Your task to perform on an android device: check google app version Image 0: 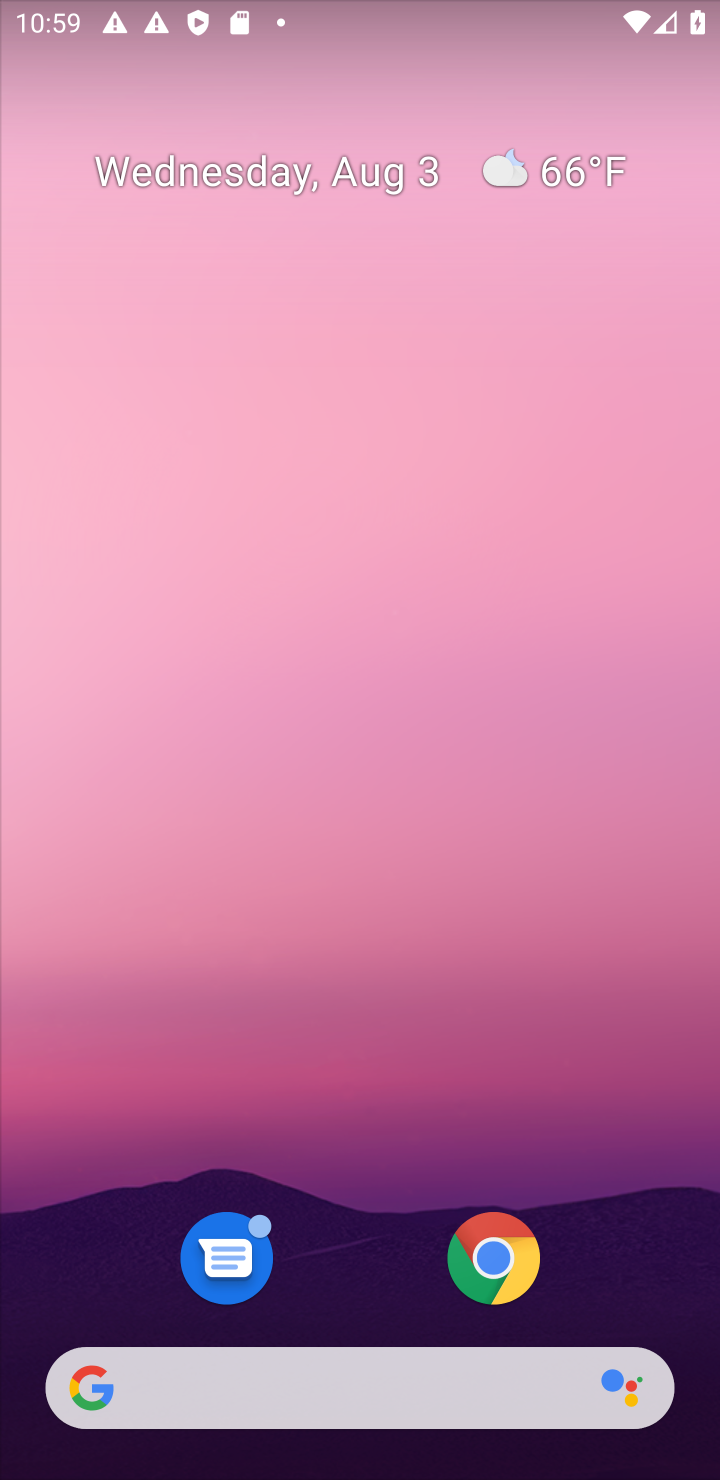
Step 0: press home button
Your task to perform on an android device: check google app version Image 1: 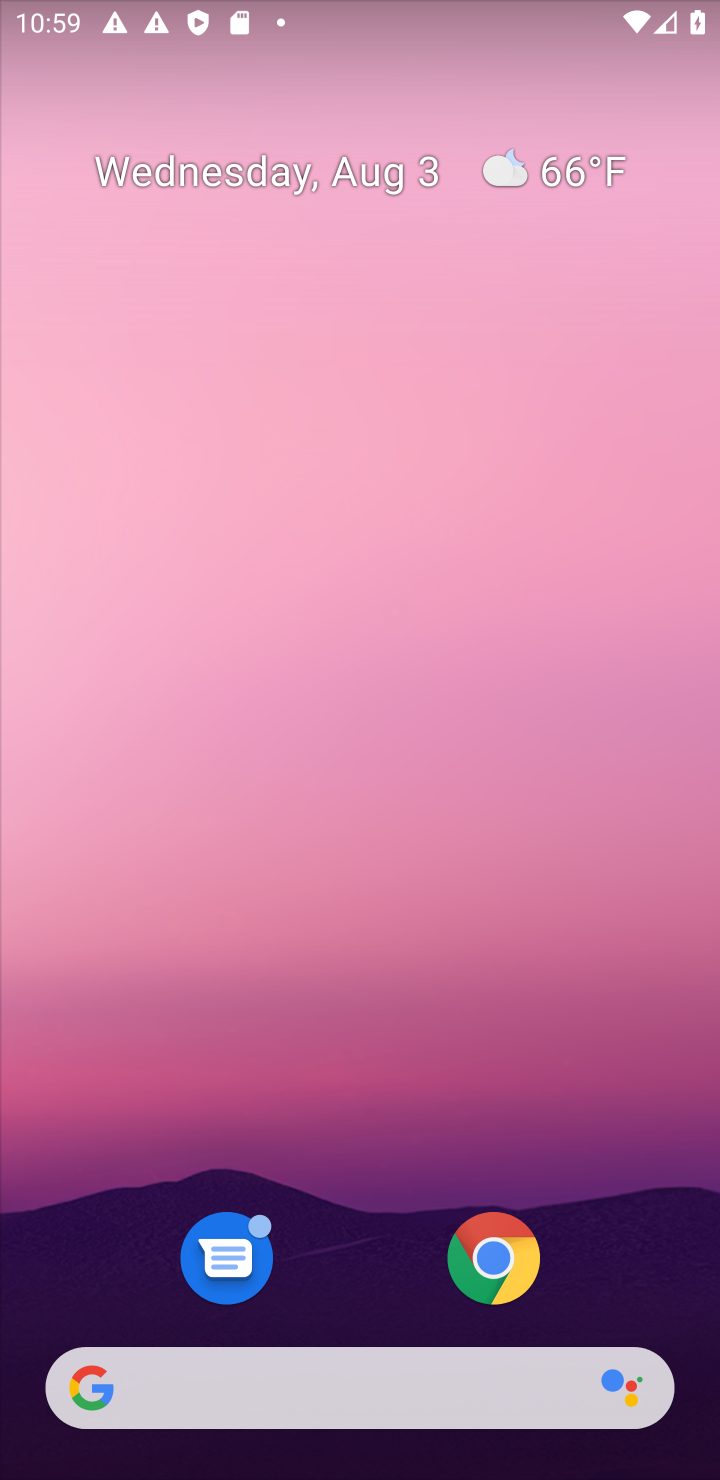
Step 1: drag from (377, 1307) to (392, 175)
Your task to perform on an android device: check google app version Image 2: 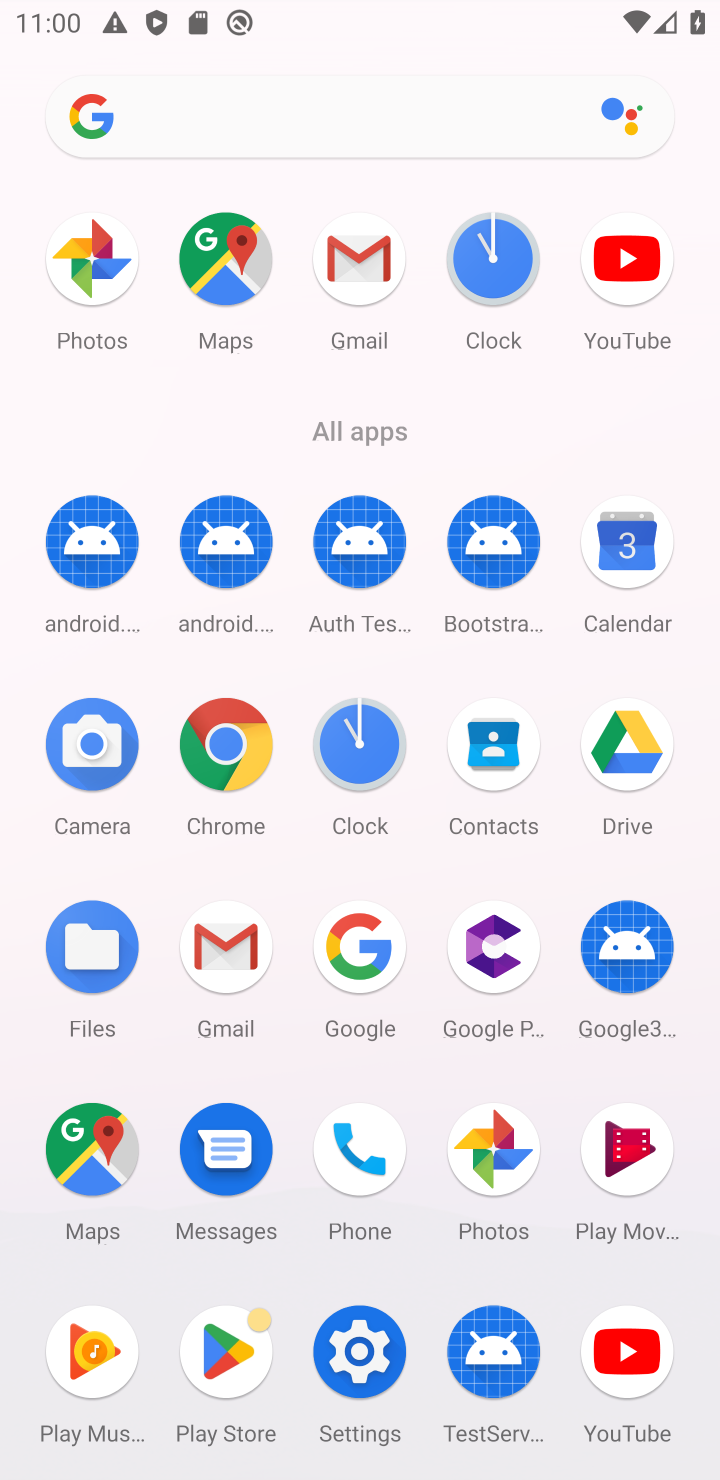
Step 2: click (360, 938)
Your task to perform on an android device: check google app version Image 3: 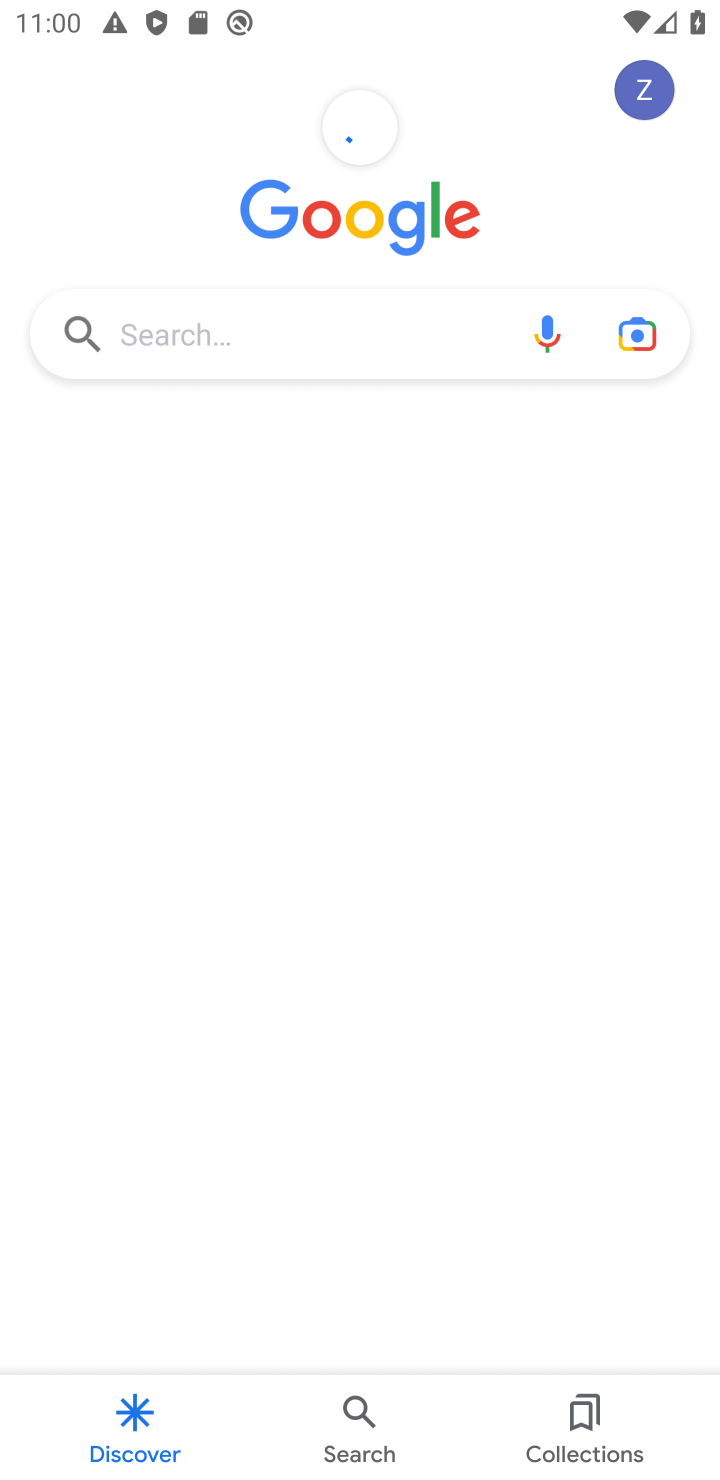
Step 3: click (638, 80)
Your task to perform on an android device: check google app version Image 4: 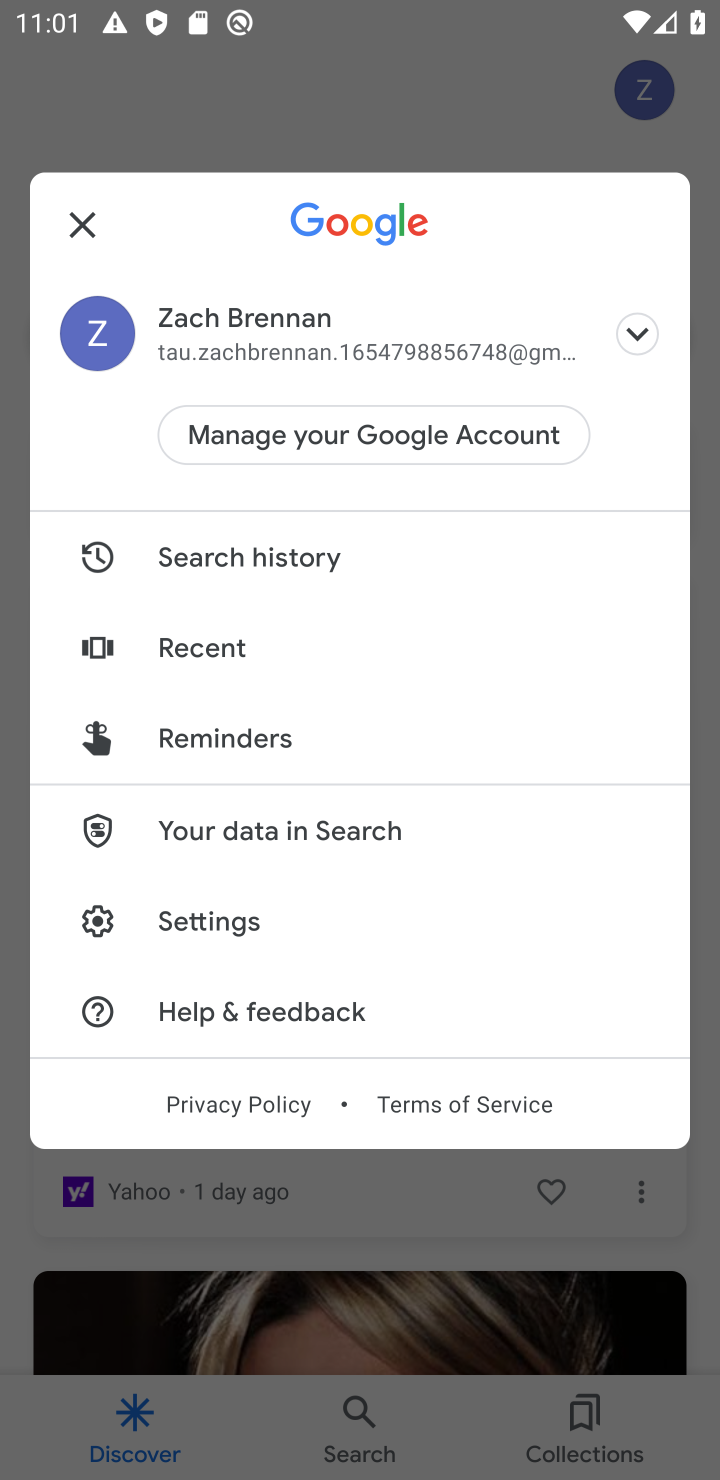
Step 4: click (294, 921)
Your task to perform on an android device: check google app version Image 5: 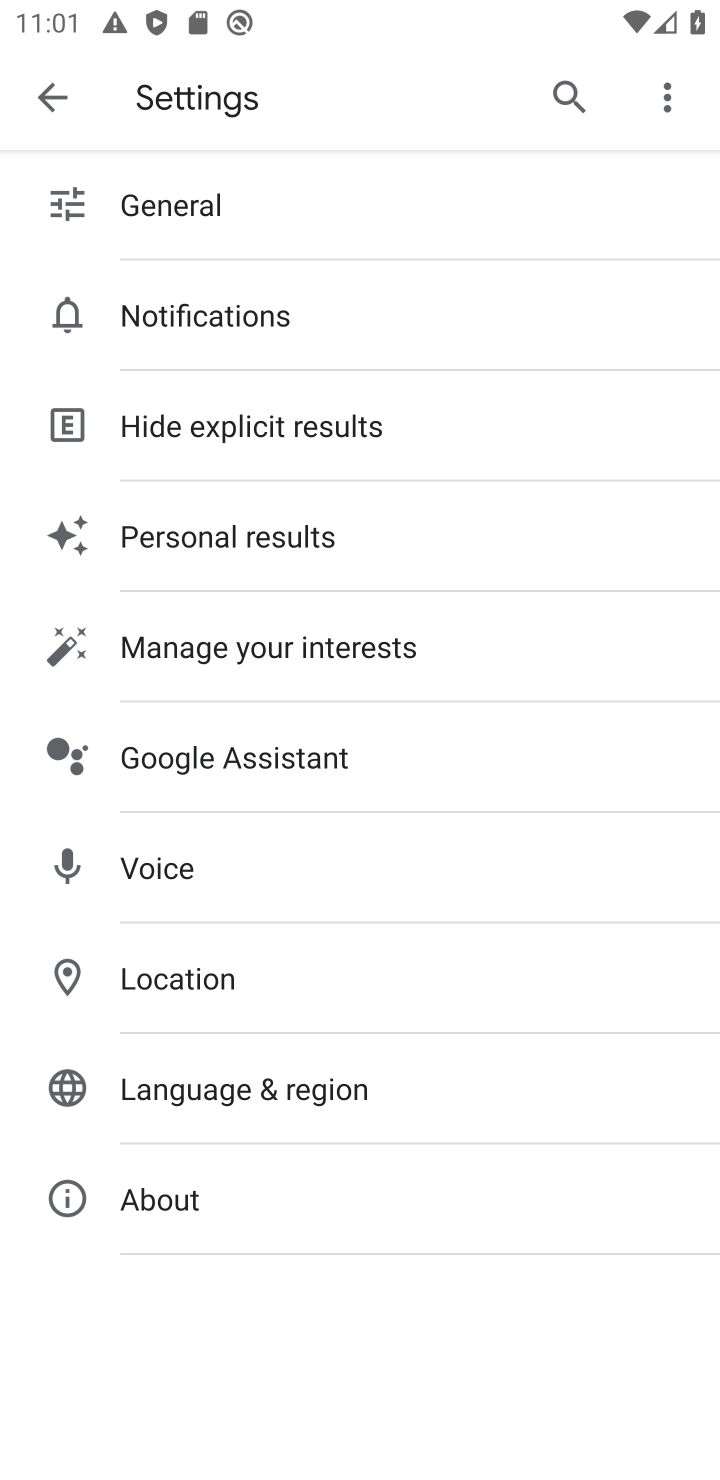
Step 5: click (186, 1194)
Your task to perform on an android device: check google app version Image 6: 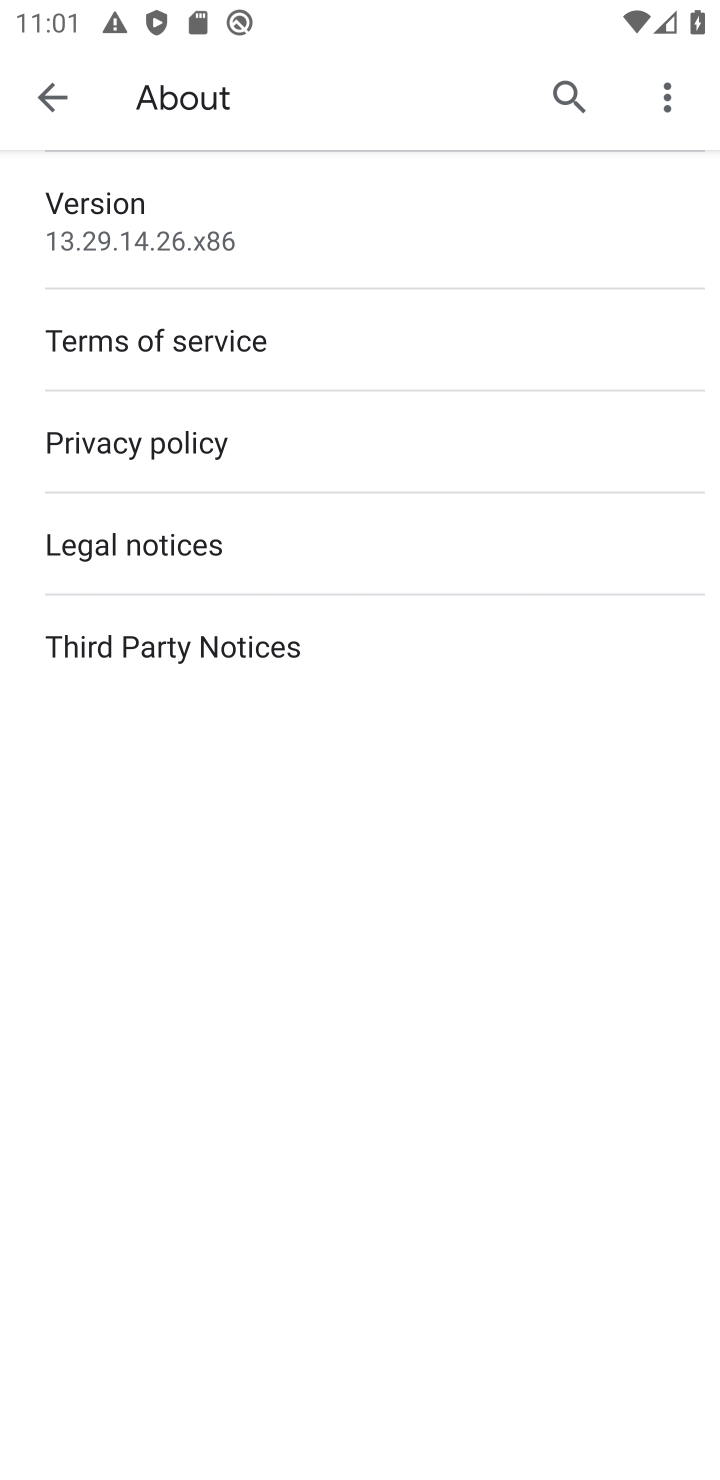
Step 6: task complete